Your task to perform on an android device: manage bookmarks in the chrome app Image 0: 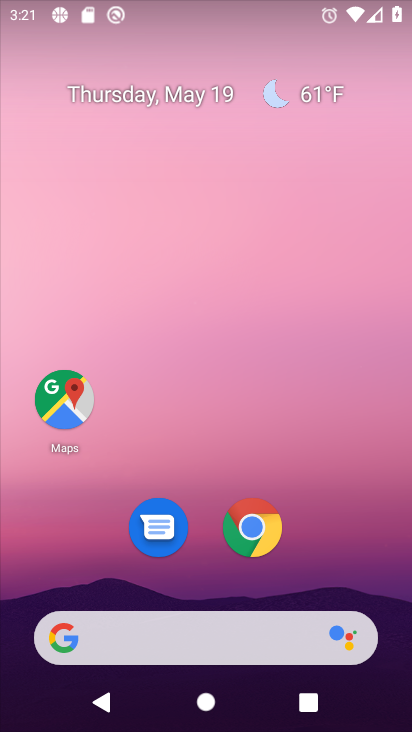
Step 0: click (254, 526)
Your task to perform on an android device: manage bookmarks in the chrome app Image 1: 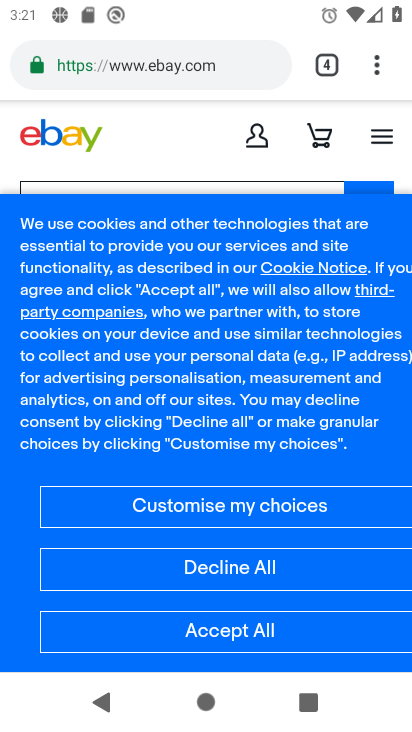
Step 1: task complete